Your task to perform on an android device: turn on improve location accuracy Image 0: 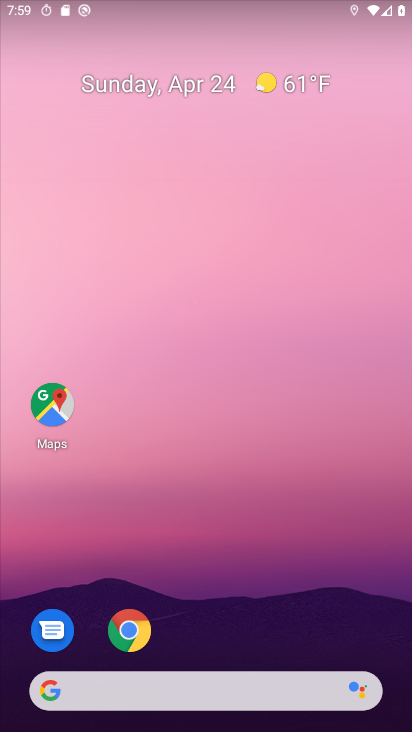
Step 0: drag from (352, 623) to (342, 62)
Your task to perform on an android device: turn on improve location accuracy Image 1: 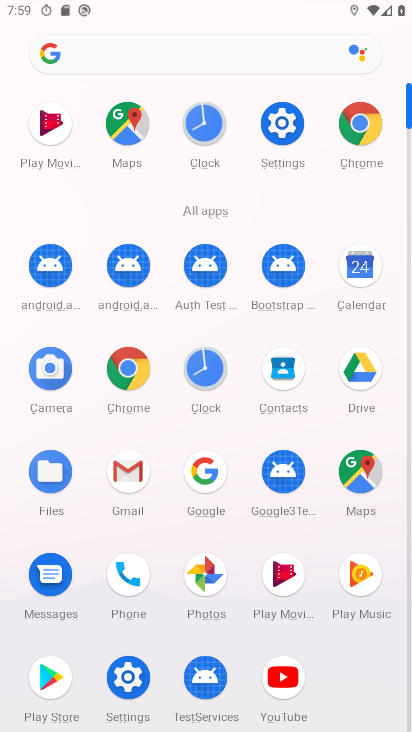
Step 1: click (282, 115)
Your task to perform on an android device: turn on improve location accuracy Image 2: 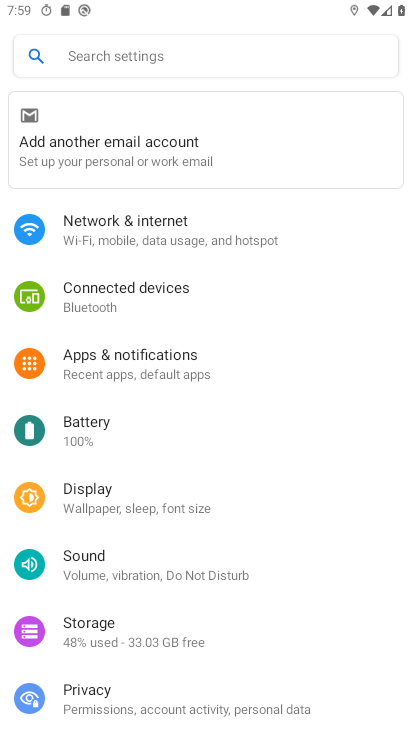
Step 2: drag from (347, 466) to (360, 340)
Your task to perform on an android device: turn on improve location accuracy Image 3: 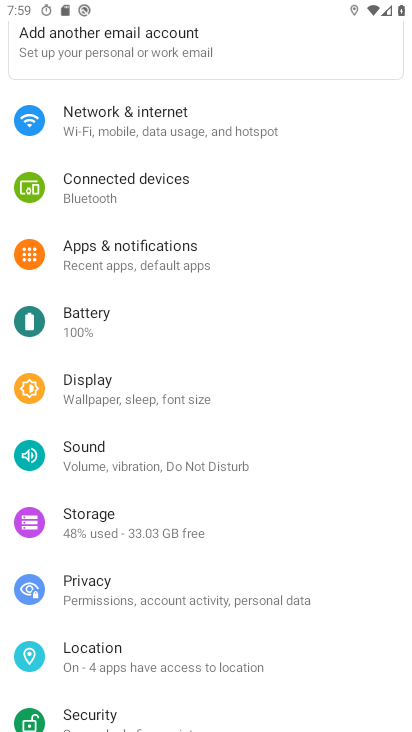
Step 3: drag from (336, 521) to (343, 376)
Your task to perform on an android device: turn on improve location accuracy Image 4: 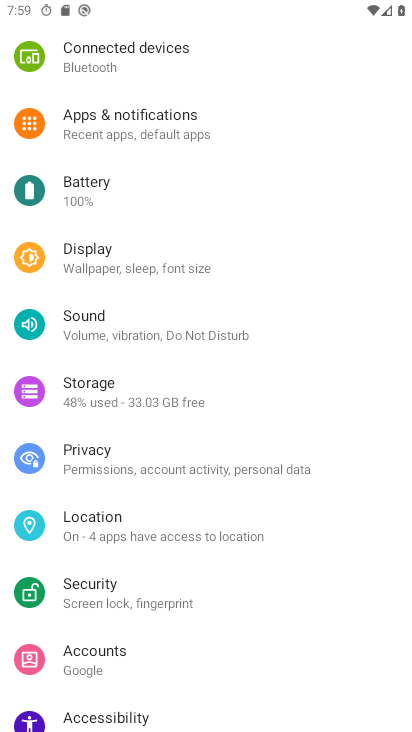
Step 4: drag from (350, 571) to (362, 393)
Your task to perform on an android device: turn on improve location accuracy Image 5: 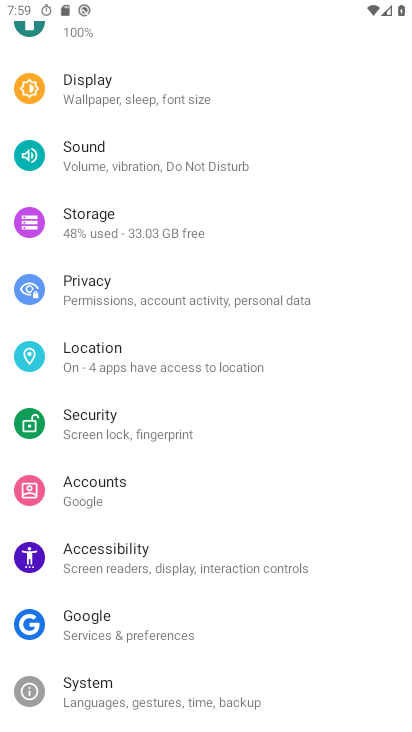
Step 5: drag from (346, 628) to (369, 463)
Your task to perform on an android device: turn on improve location accuracy Image 6: 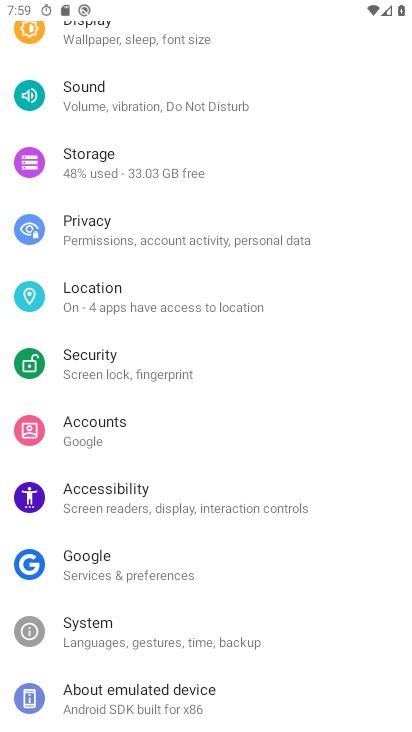
Step 6: drag from (361, 277) to (361, 430)
Your task to perform on an android device: turn on improve location accuracy Image 7: 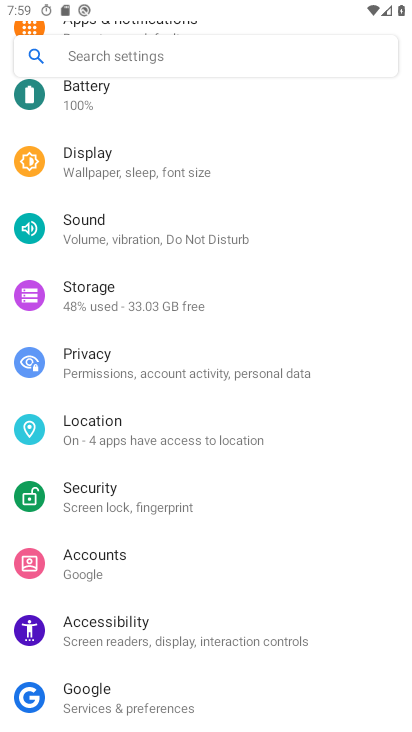
Step 7: drag from (355, 287) to (360, 443)
Your task to perform on an android device: turn on improve location accuracy Image 8: 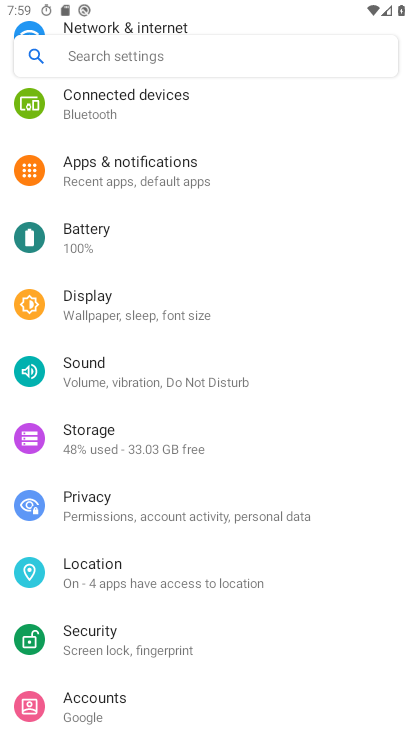
Step 8: drag from (360, 259) to (352, 430)
Your task to perform on an android device: turn on improve location accuracy Image 9: 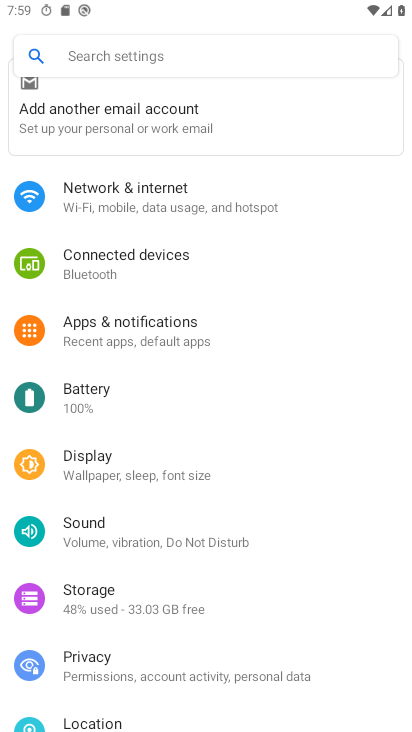
Step 9: drag from (335, 229) to (345, 382)
Your task to perform on an android device: turn on improve location accuracy Image 10: 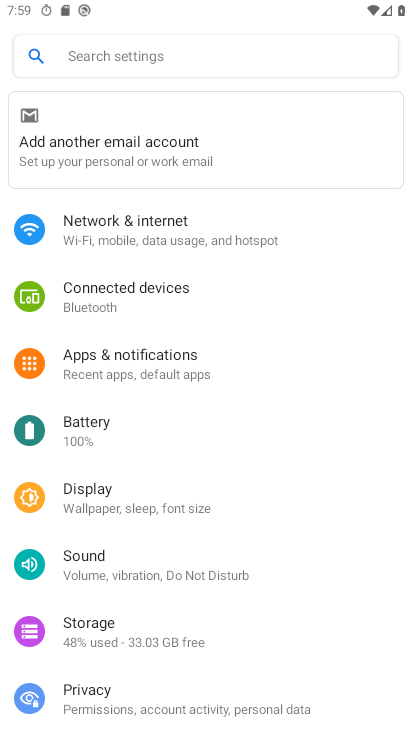
Step 10: drag from (351, 546) to (347, 426)
Your task to perform on an android device: turn on improve location accuracy Image 11: 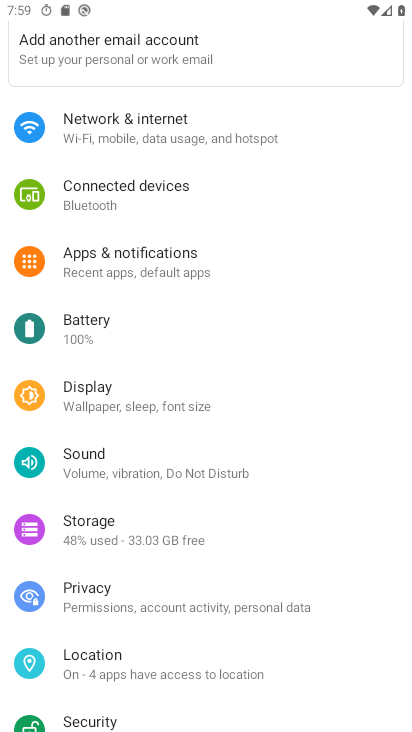
Step 11: drag from (344, 621) to (380, 378)
Your task to perform on an android device: turn on improve location accuracy Image 12: 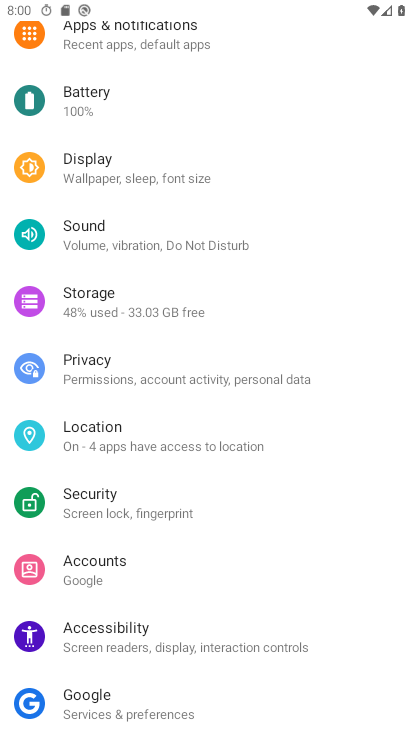
Step 12: drag from (334, 580) to (349, 411)
Your task to perform on an android device: turn on improve location accuracy Image 13: 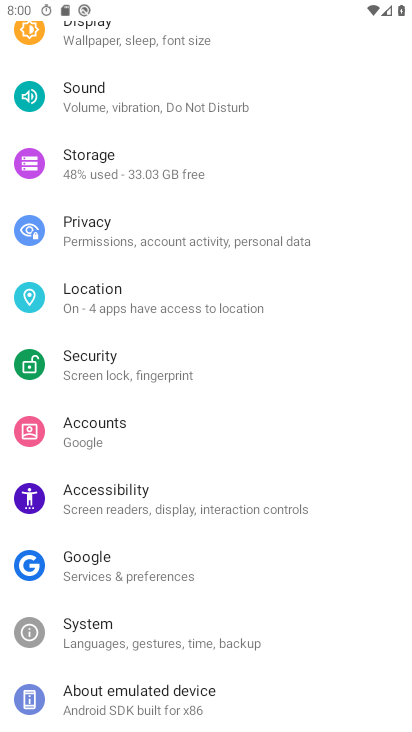
Step 13: click (231, 296)
Your task to perform on an android device: turn on improve location accuracy Image 14: 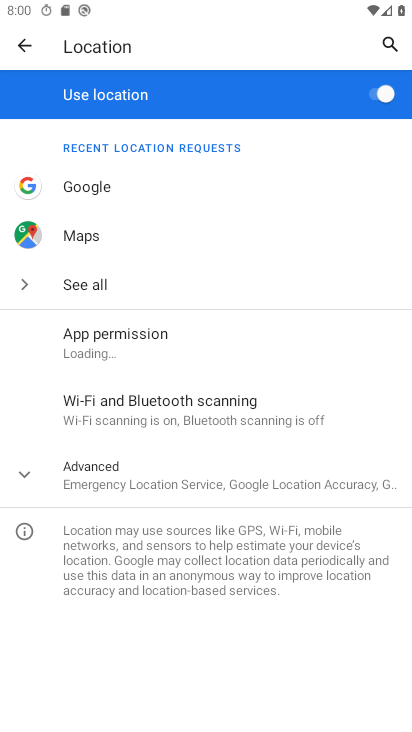
Step 14: click (250, 481)
Your task to perform on an android device: turn on improve location accuracy Image 15: 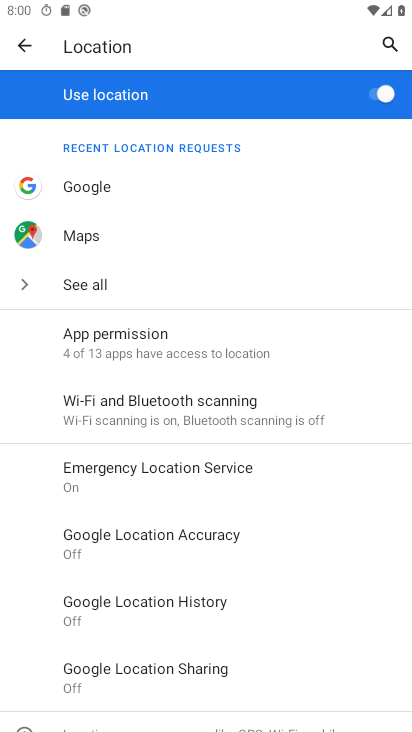
Step 15: drag from (306, 605) to (310, 454)
Your task to perform on an android device: turn on improve location accuracy Image 16: 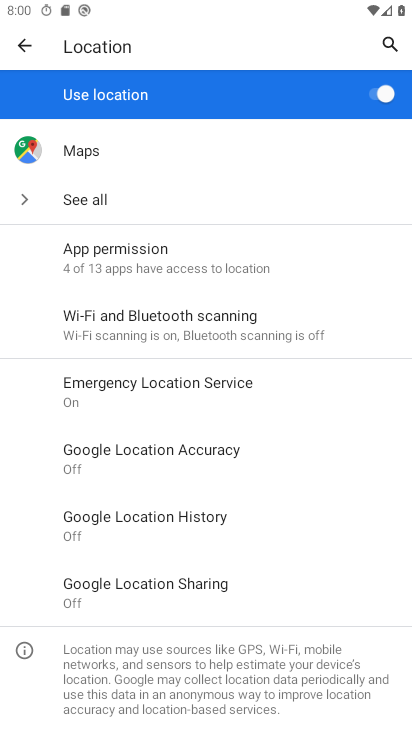
Step 16: click (230, 455)
Your task to perform on an android device: turn on improve location accuracy Image 17: 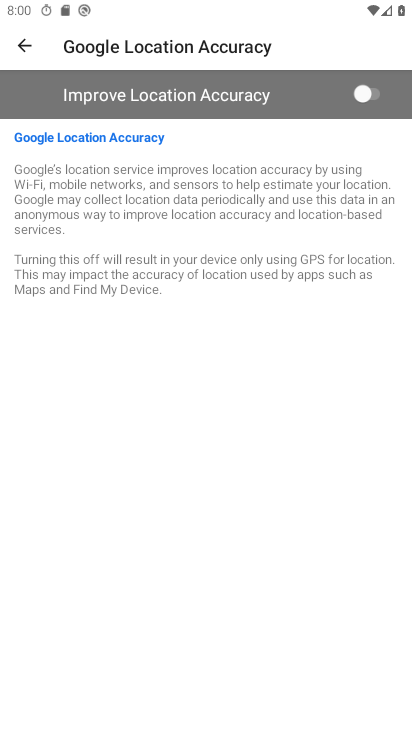
Step 17: click (368, 96)
Your task to perform on an android device: turn on improve location accuracy Image 18: 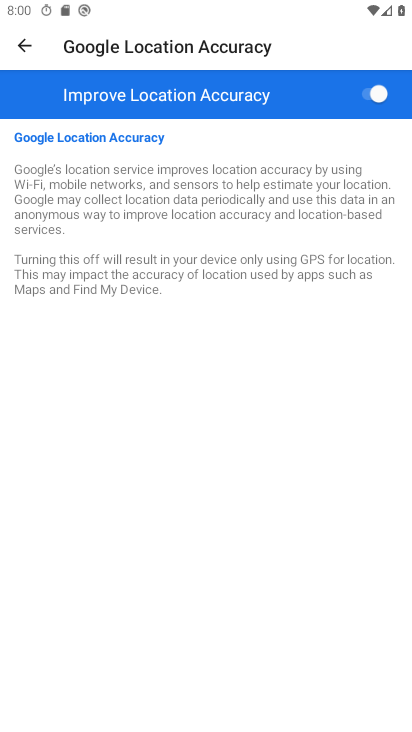
Step 18: task complete